Your task to perform on an android device: open a new tab in the chrome app Image 0: 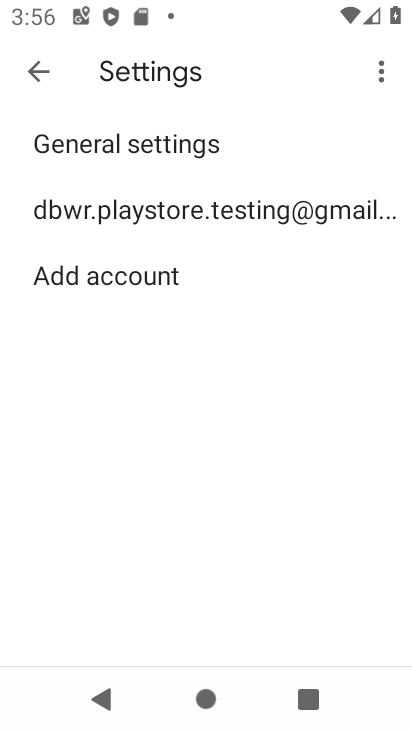
Step 0: press home button
Your task to perform on an android device: open a new tab in the chrome app Image 1: 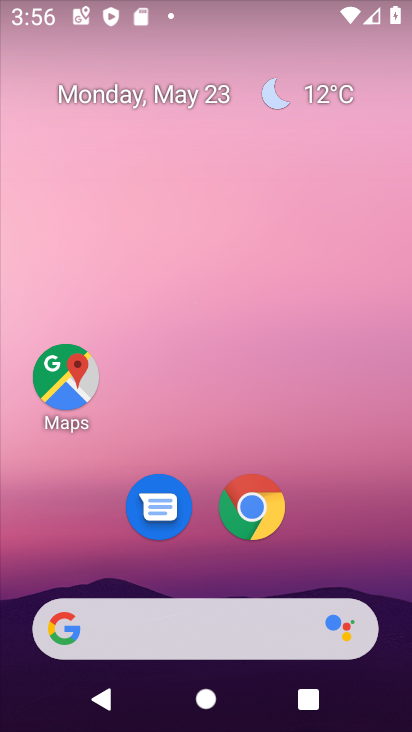
Step 1: click (267, 509)
Your task to perform on an android device: open a new tab in the chrome app Image 2: 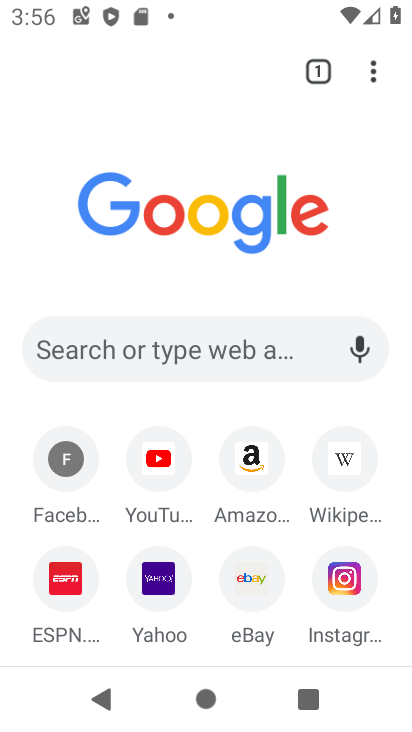
Step 2: click (385, 68)
Your task to perform on an android device: open a new tab in the chrome app Image 3: 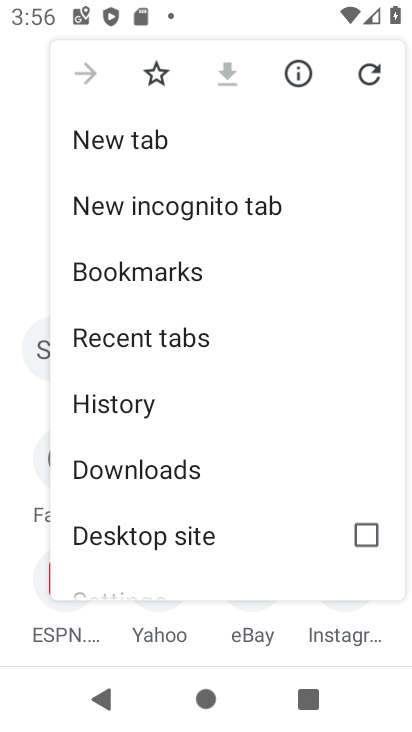
Step 3: click (95, 156)
Your task to perform on an android device: open a new tab in the chrome app Image 4: 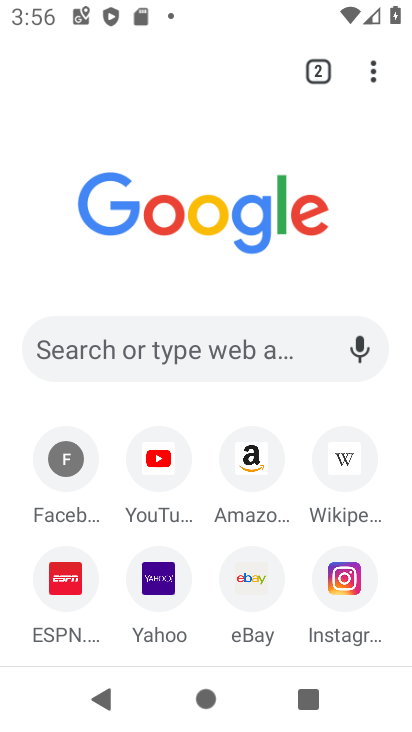
Step 4: task complete